Your task to perform on an android device: Clear all items from cart on target.com. Search for "acer predator" on target.com, select the first entry, add it to the cart, then select checkout. Image 0: 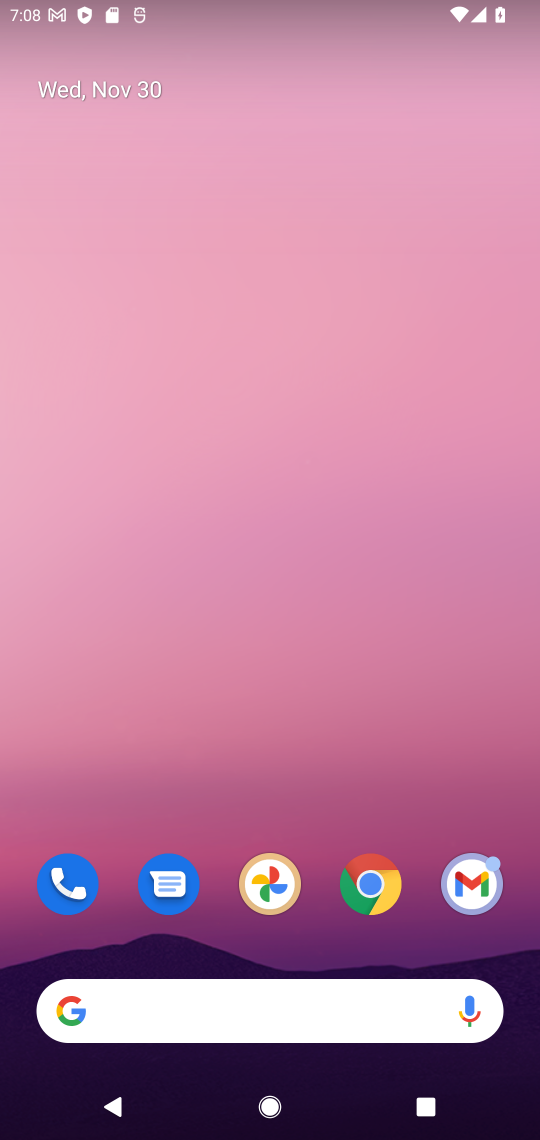
Step 0: click (383, 879)
Your task to perform on an android device: Clear all items from cart on target.com. Search for "acer predator" on target.com, select the first entry, add it to the cart, then select checkout. Image 1: 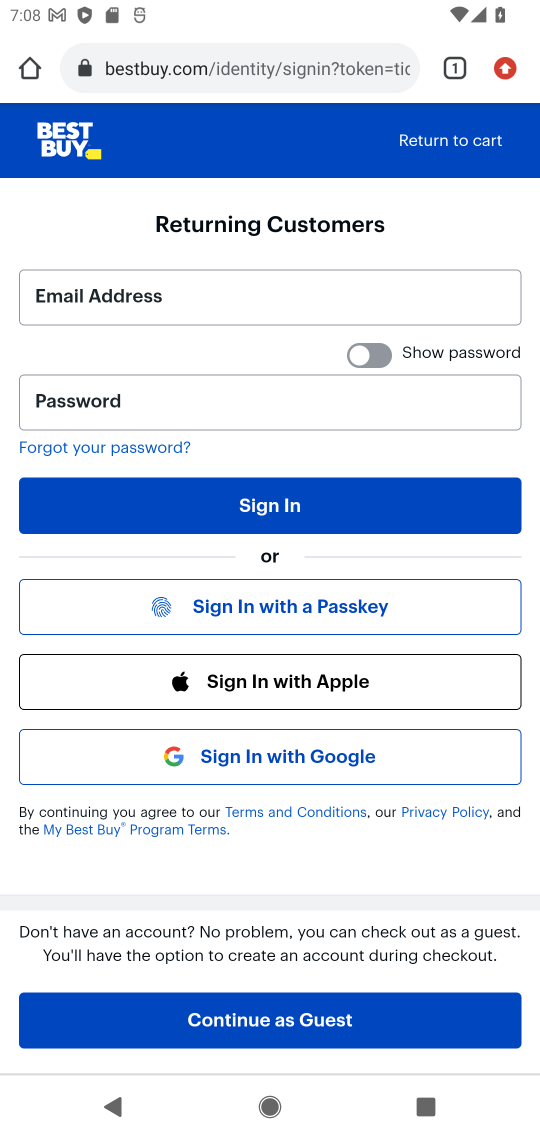
Step 1: click (208, 72)
Your task to perform on an android device: Clear all items from cart on target.com. Search for "acer predator" on target.com, select the first entry, add it to the cart, then select checkout. Image 2: 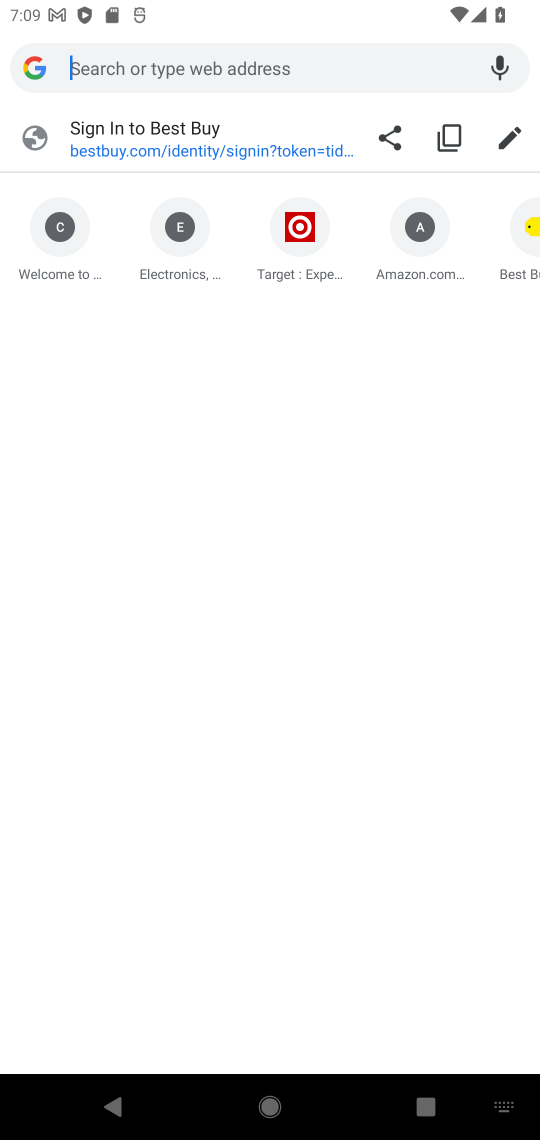
Step 2: click (294, 232)
Your task to perform on an android device: Clear all items from cart on target.com. Search for "acer predator" on target.com, select the first entry, add it to the cart, then select checkout. Image 3: 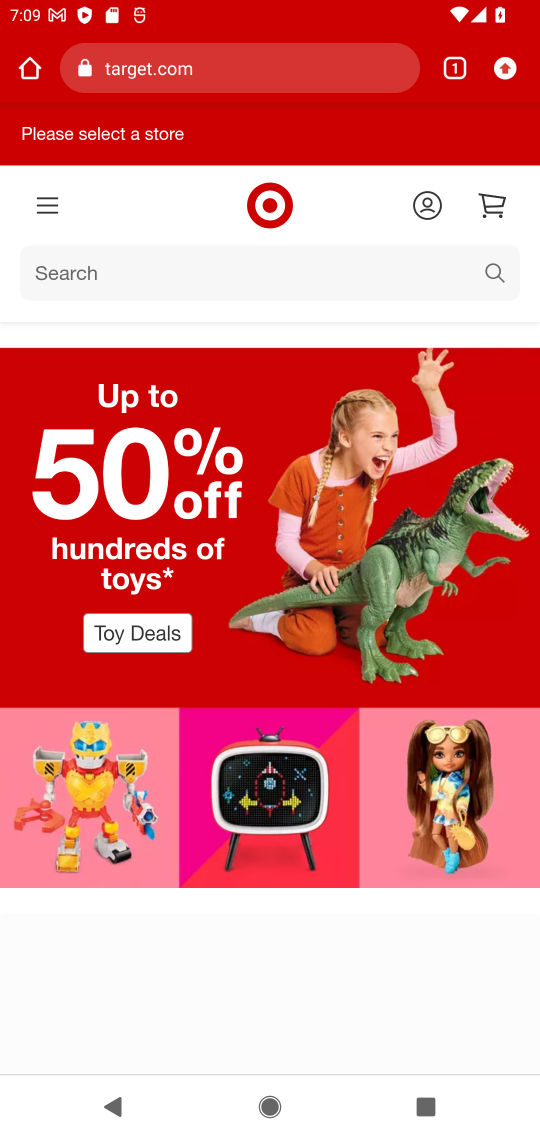
Step 3: click (500, 207)
Your task to perform on an android device: Clear all items from cart on target.com. Search for "acer predator" on target.com, select the first entry, add it to the cart, then select checkout. Image 4: 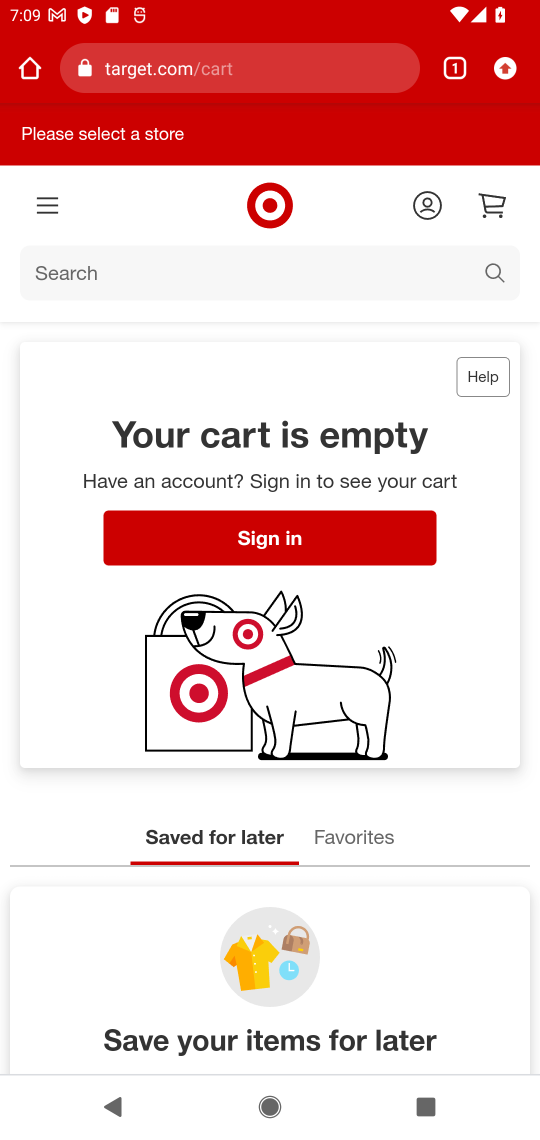
Step 4: click (65, 285)
Your task to perform on an android device: Clear all items from cart on target.com. Search for "acer predator" on target.com, select the first entry, add it to the cart, then select checkout. Image 5: 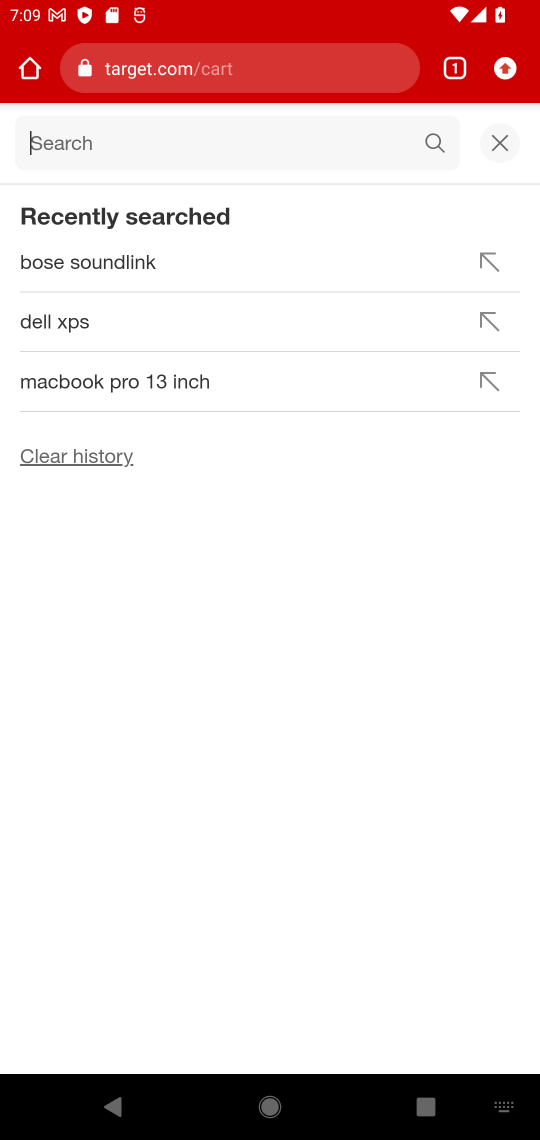
Step 5: type "acer predator"
Your task to perform on an android device: Clear all items from cart on target.com. Search for "acer predator" on target.com, select the first entry, add it to the cart, then select checkout. Image 6: 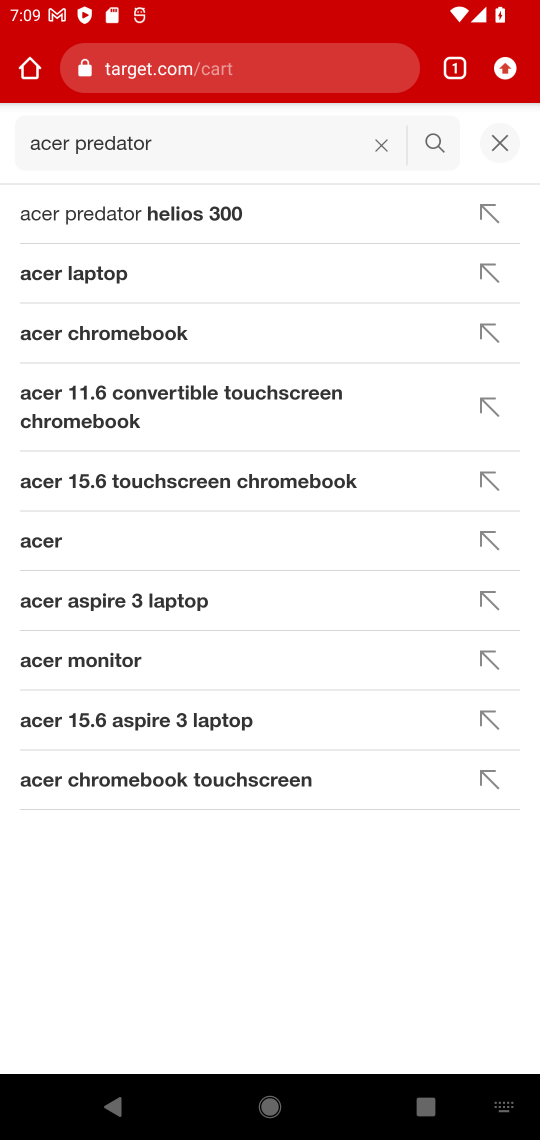
Step 6: click (436, 144)
Your task to perform on an android device: Clear all items from cart on target.com. Search for "acer predator" on target.com, select the first entry, add it to the cart, then select checkout. Image 7: 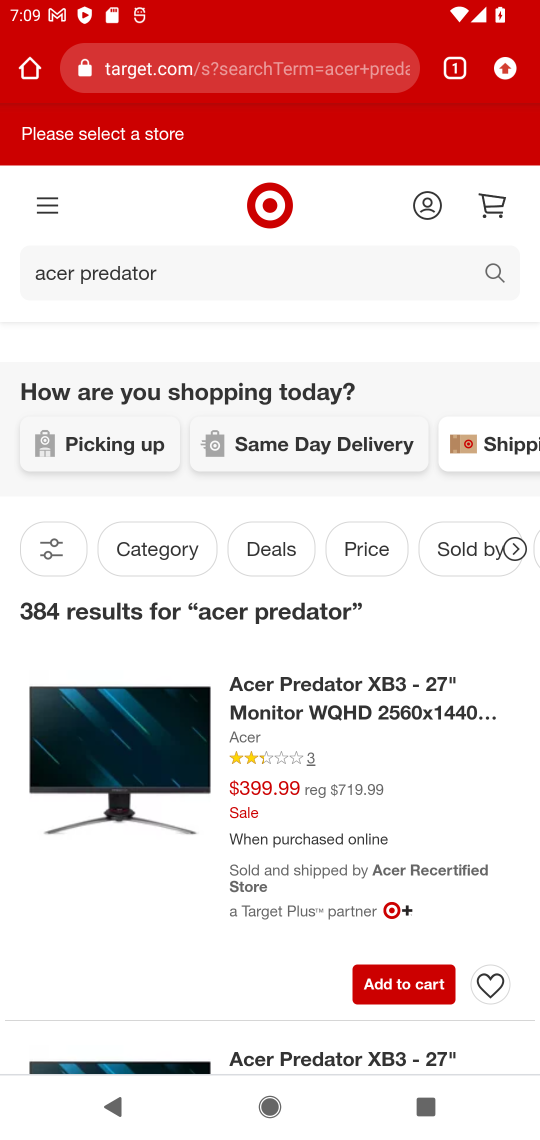
Step 7: click (389, 989)
Your task to perform on an android device: Clear all items from cart on target.com. Search for "acer predator" on target.com, select the first entry, add it to the cart, then select checkout. Image 8: 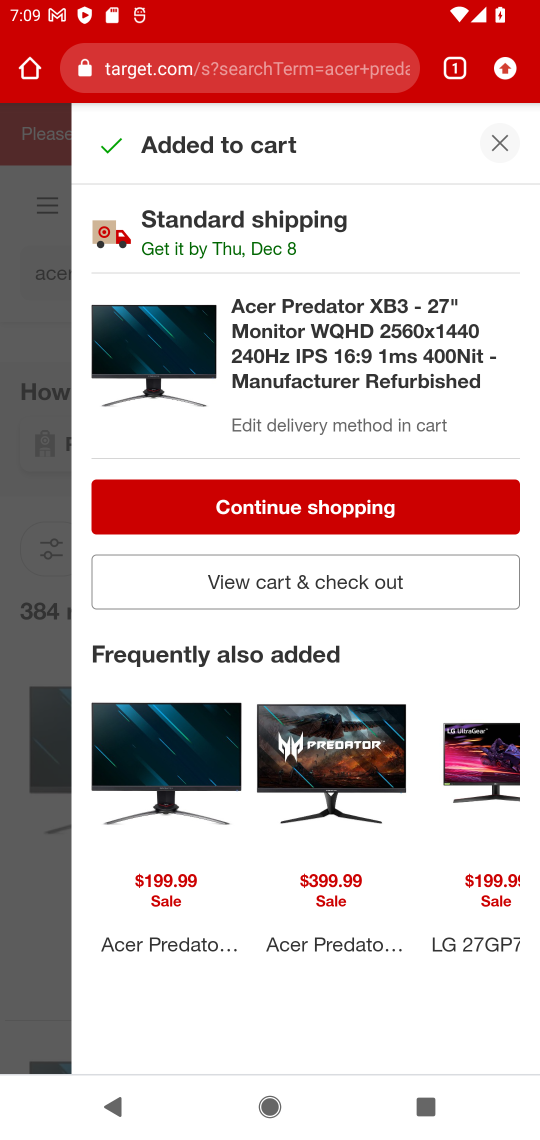
Step 8: click (294, 587)
Your task to perform on an android device: Clear all items from cart on target.com. Search for "acer predator" on target.com, select the first entry, add it to the cart, then select checkout. Image 9: 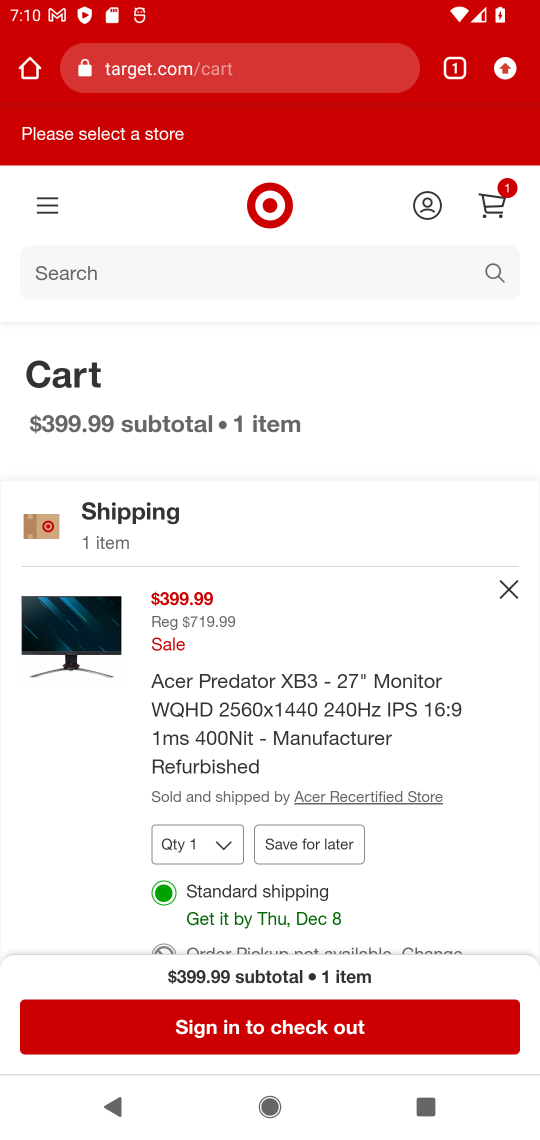
Step 9: click (271, 1028)
Your task to perform on an android device: Clear all items from cart on target.com. Search for "acer predator" on target.com, select the first entry, add it to the cart, then select checkout. Image 10: 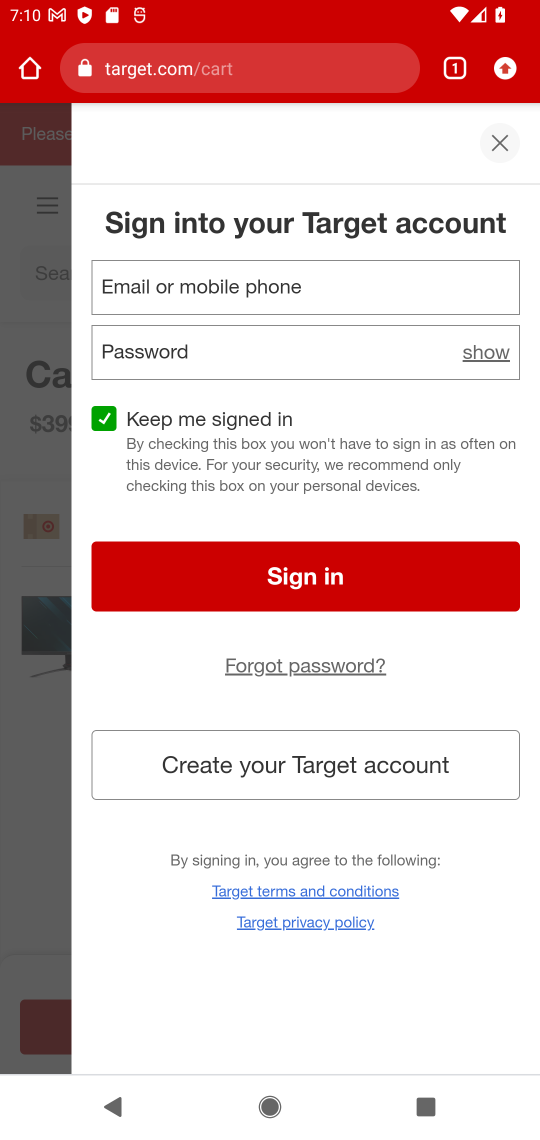
Step 10: task complete